Your task to perform on an android device: turn off sleep mode Image 0: 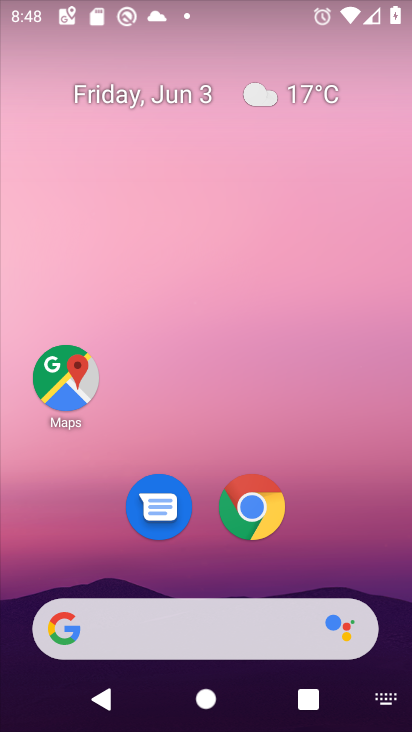
Step 0: press home button
Your task to perform on an android device: turn off sleep mode Image 1: 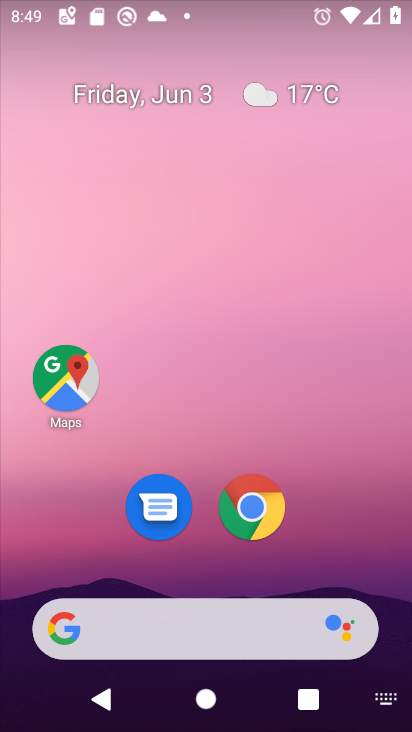
Step 1: drag from (361, 580) to (251, 50)
Your task to perform on an android device: turn off sleep mode Image 2: 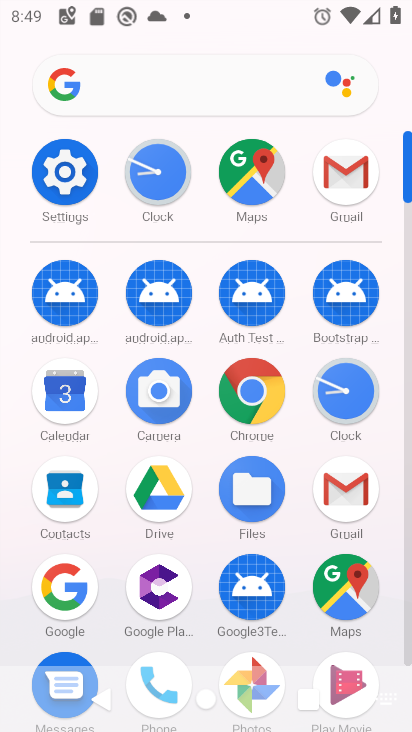
Step 2: click (58, 180)
Your task to perform on an android device: turn off sleep mode Image 3: 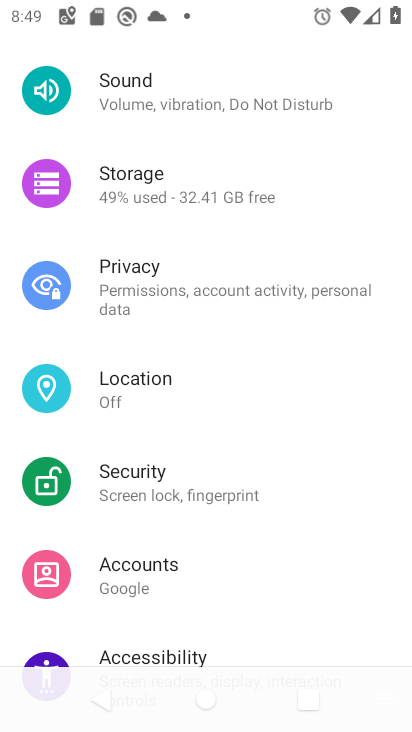
Step 3: drag from (267, 493) to (202, 21)
Your task to perform on an android device: turn off sleep mode Image 4: 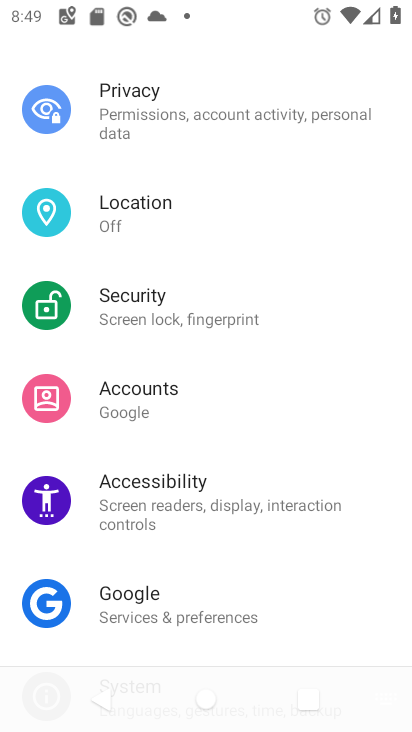
Step 4: drag from (216, 185) to (232, 674)
Your task to perform on an android device: turn off sleep mode Image 5: 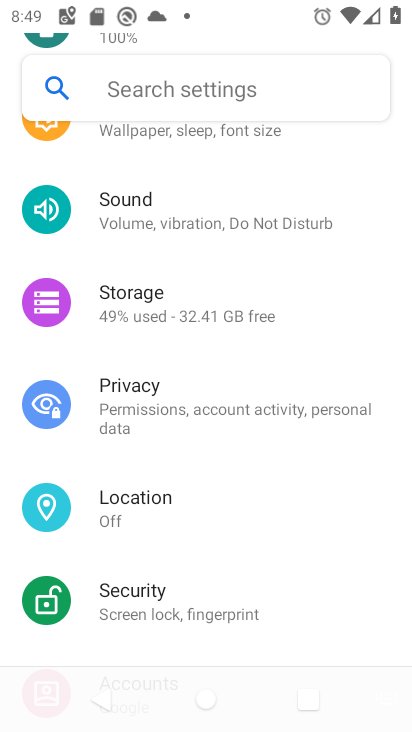
Step 5: drag from (243, 221) to (238, 612)
Your task to perform on an android device: turn off sleep mode Image 6: 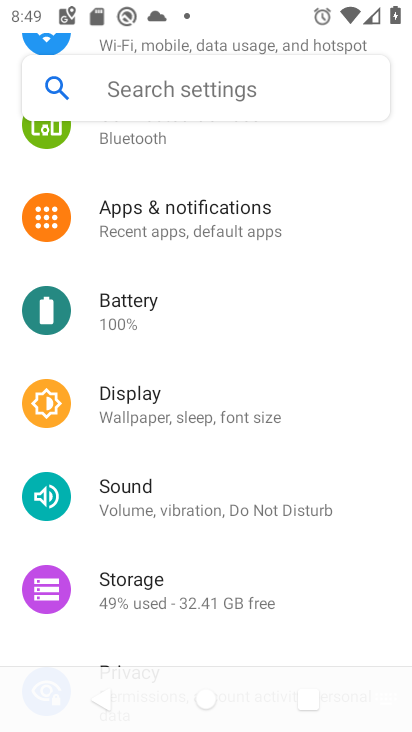
Step 6: click (169, 392)
Your task to perform on an android device: turn off sleep mode Image 7: 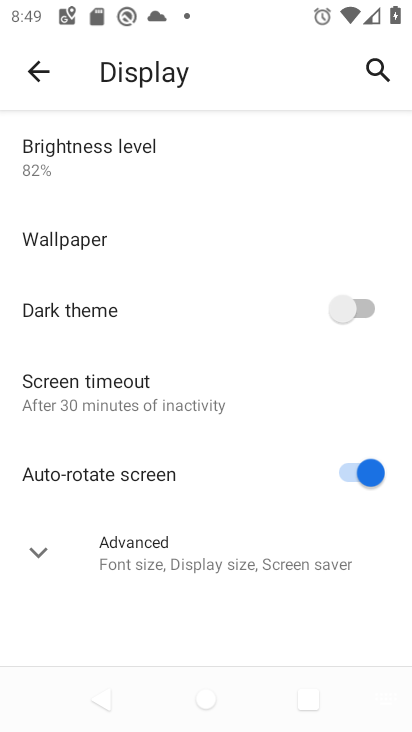
Step 7: task complete